Your task to perform on an android device: toggle translation in the chrome app Image 0: 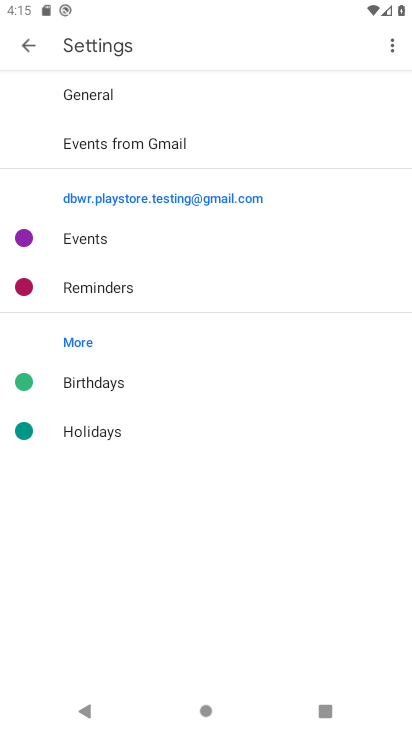
Step 0: drag from (137, 728) to (138, 125)
Your task to perform on an android device: toggle translation in the chrome app Image 1: 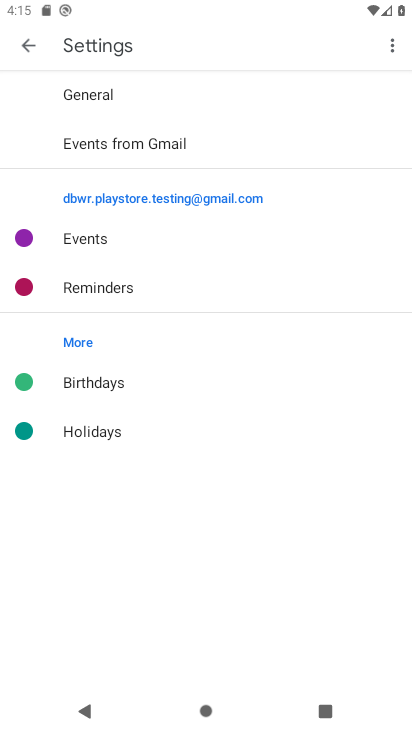
Step 1: press home button
Your task to perform on an android device: toggle translation in the chrome app Image 2: 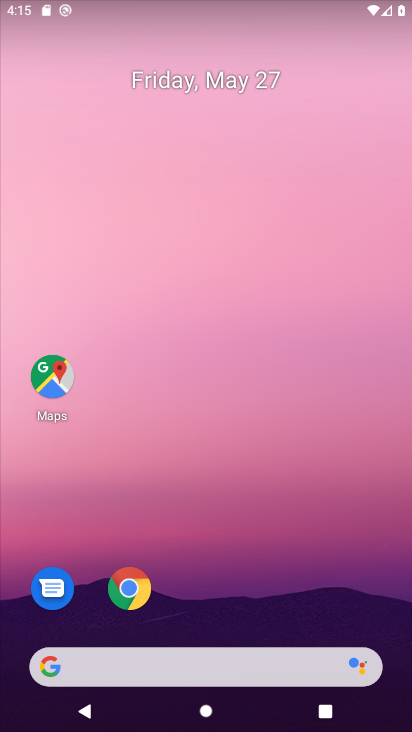
Step 2: click (121, 596)
Your task to perform on an android device: toggle translation in the chrome app Image 3: 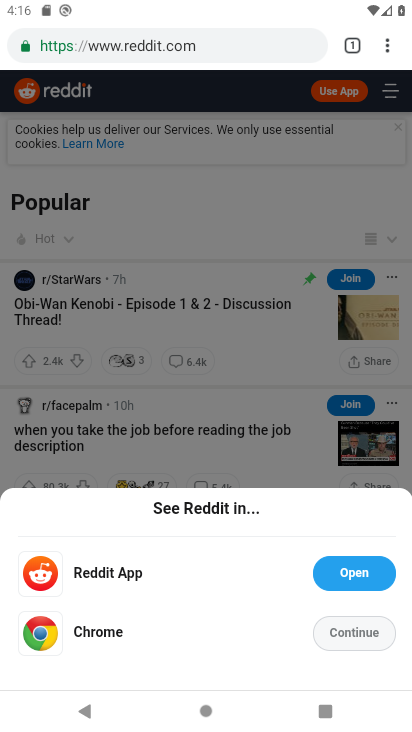
Step 3: click (391, 44)
Your task to perform on an android device: toggle translation in the chrome app Image 4: 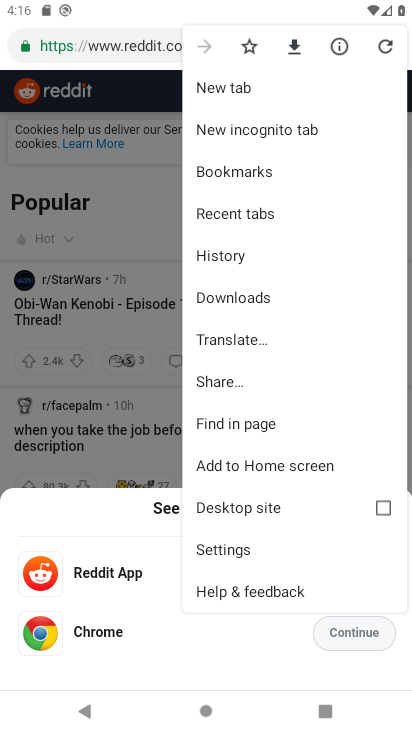
Step 4: click (241, 554)
Your task to perform on an android device: toggle translation in the chrome app Image 5: 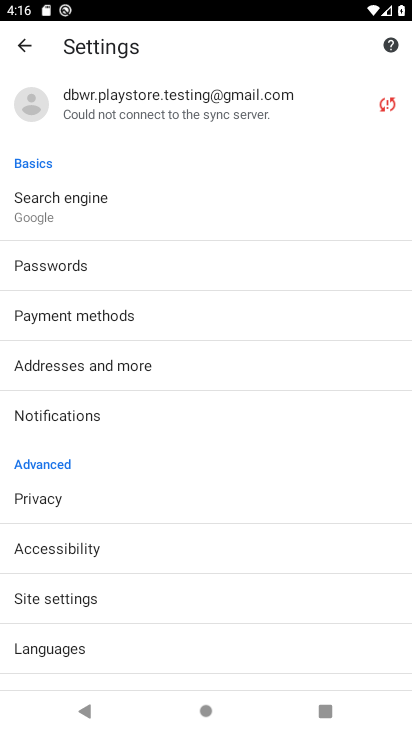
Step 5: click (60, 648)
Your task to perform on an android device: toggle translation in the chrome app Image 6: 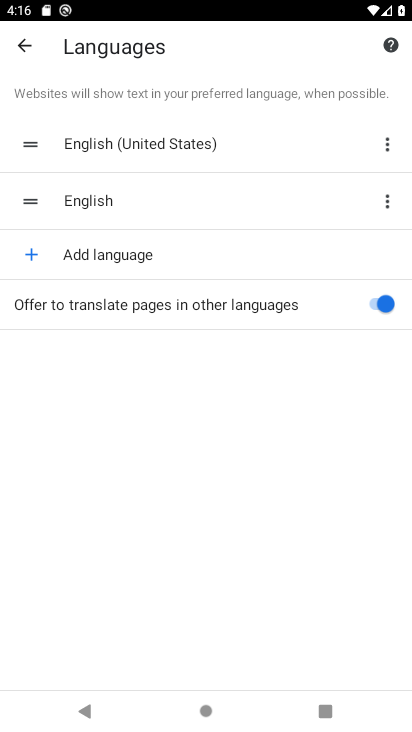
Step 6: click (386, 307)
Your task to perform on an android device: toggle translation in the chrome app Image 7: 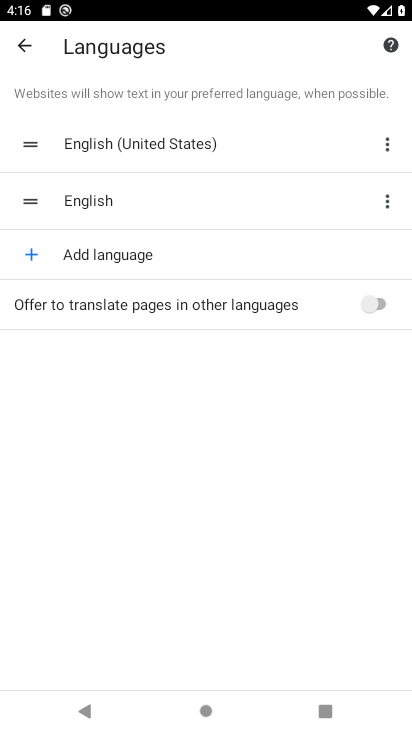
Step 7: task complete